Your task to perform on an android device: Open Youtube and go to the subscriptions tab Image 0: 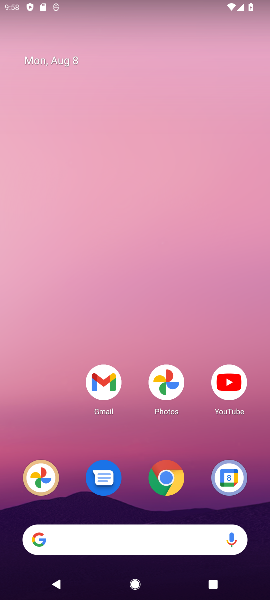
Step 0: drag from (128, 524) to (89, 37)
Your task to perform on an android device: Open Youtube and go to the subscriptions tab Image 1: 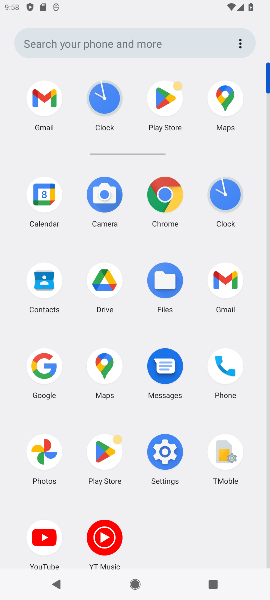
Step 1: click (52, 197)
Your task to perform on an android device: Open Youtube and go to the subscriptions tab Image 2: 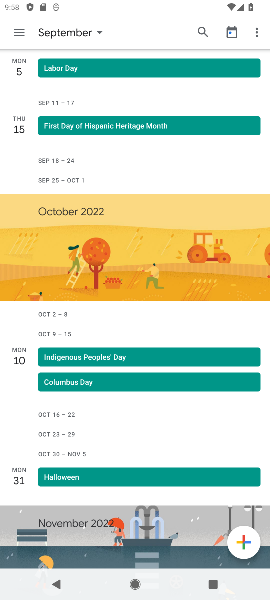
Step 2: task complete